Your task to perform on an android device: Open privacy settings Image 0: 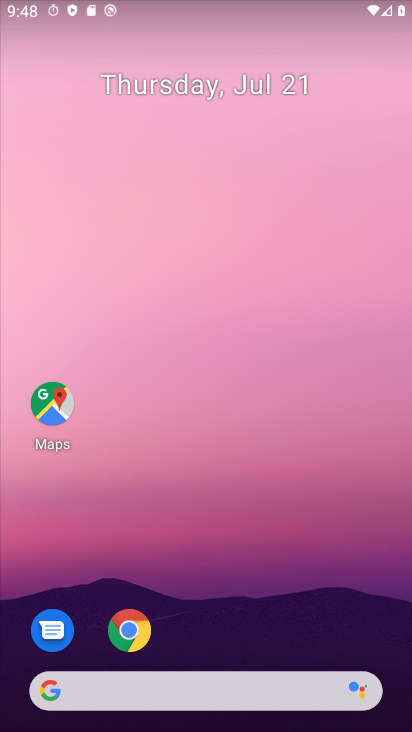
Step 0: drag from (175, 58) to (189, 148)
Your task to perform on an android device: Open privacy settings Image 1: 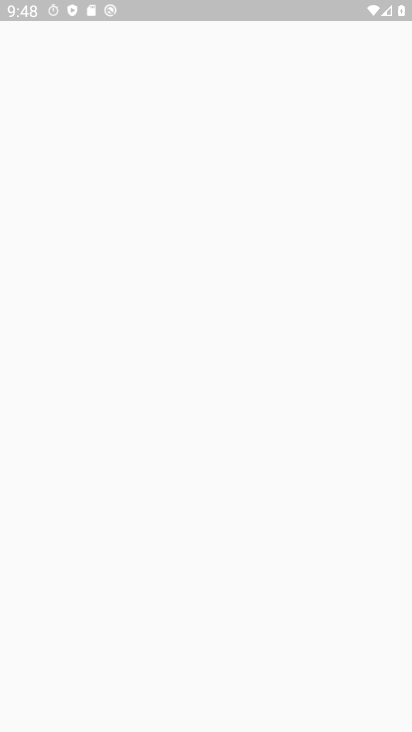
Step 1: click (126, 159)
Your task to perform on an android device: Open privacy settings Image 2: 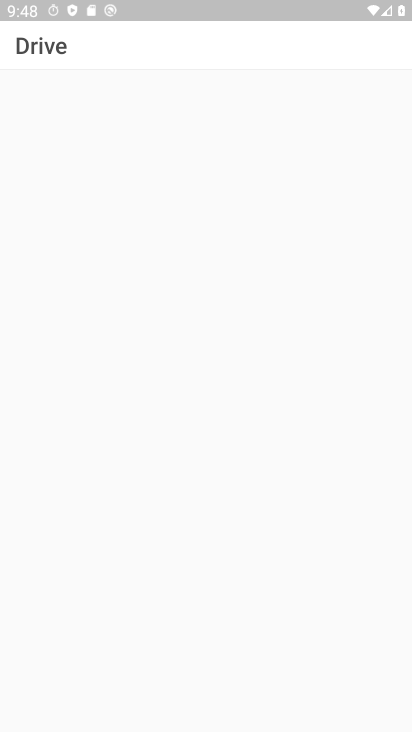
Step 2: press back button
Your task to perform on an android device: Open privacy settings Image 3: 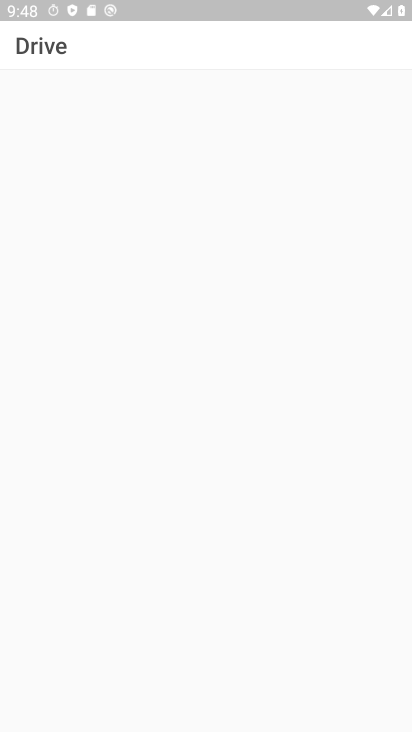
Step 3: click (197, 27)
Your task to perform on an android device: Open privacy settings Image 4: 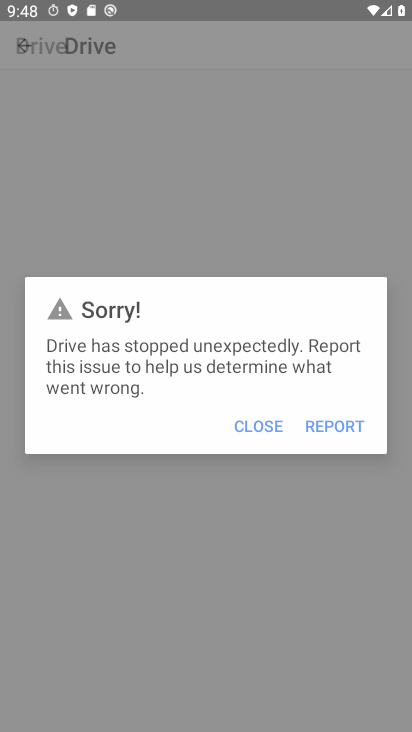
Step 4: press back button
Your task to perform on an android device: Open privacy settings Image 5: 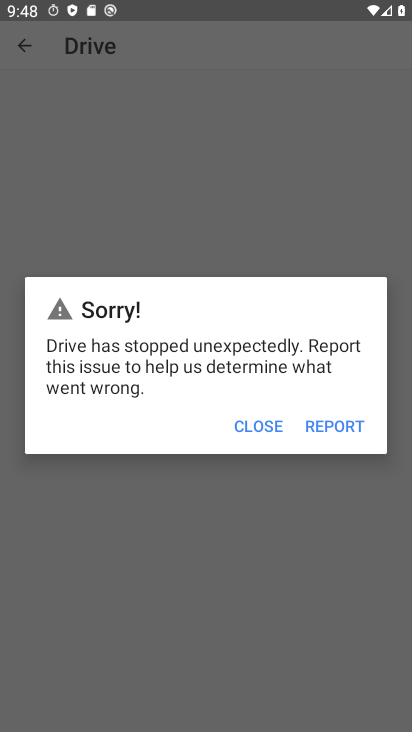
Step 5: click (242, 404)
Your task to perform on an android device: Open privacy settings Image 6: 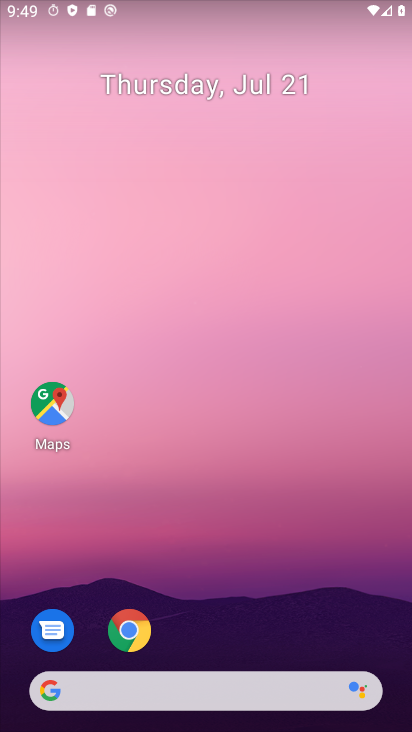
Step 6: drag from (227, 665) to (105, 209)
Your task to perform on an android device: Open privacy settings Image 7: 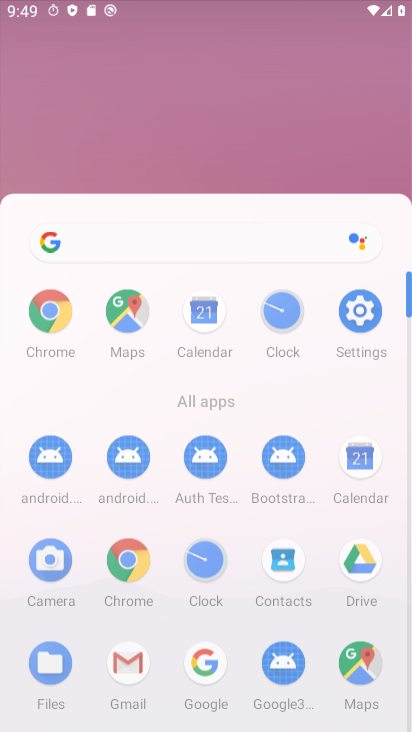
Step 7: drag from (219, 584) to (132, 178)
Your task to perform on an android device: Open privacy settings Image 8: 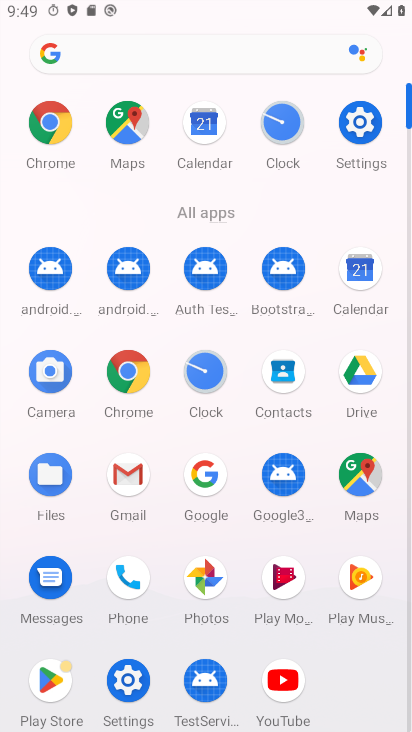
Step 8: drag from (190, 533) to (172, 160)
Your task to perform on an android device: Open privacy settings Image 9: 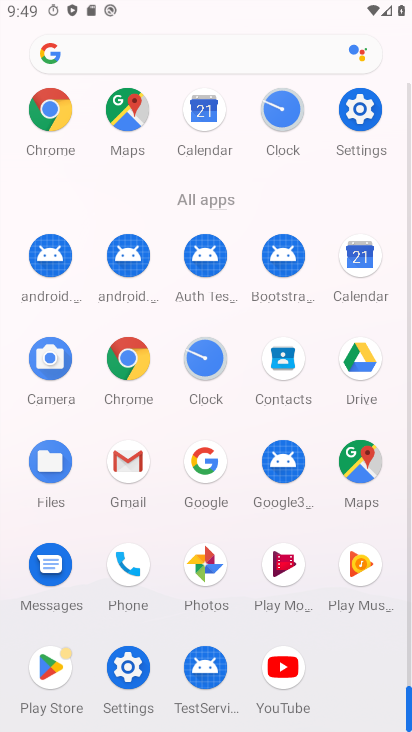
Step 9: click (357, 123)
Your task to perform on an android device: Open privacy settings Image 10: 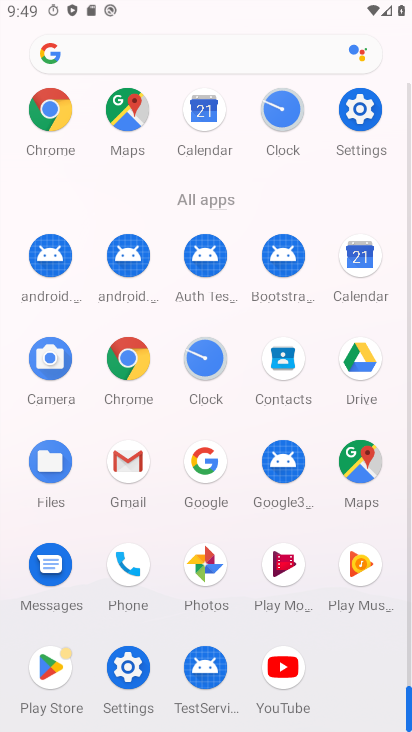
Step 10: click (372, 112)
Your task to perform on an android device: Open privacy settings Image 11: 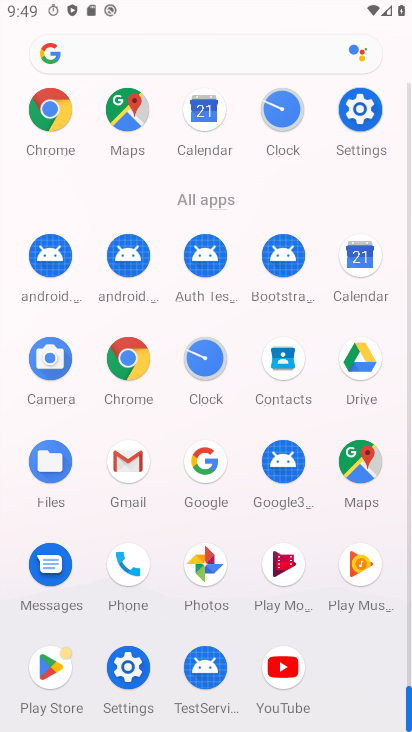
Step 11: click (373, 111)
Your task to perform on an android device: Open privacy settings Image 12: 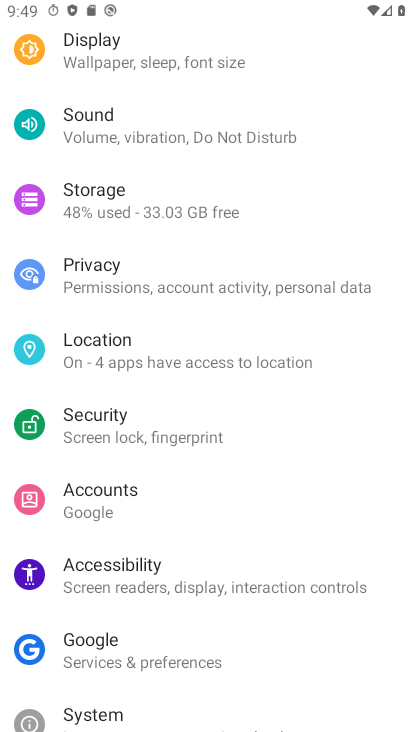
Step 12: click (107, 277)
Your task to perform on an android device: Open privacy settings Image 13: 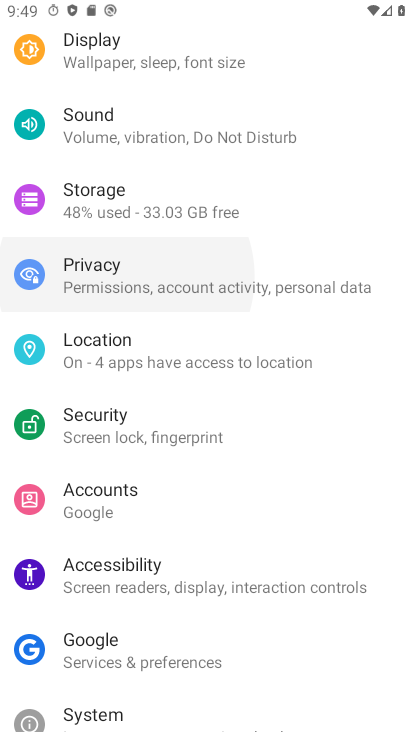
Step 13: click (107, 277)
Your task to perform on an android device: Open privacy settings Image 14: 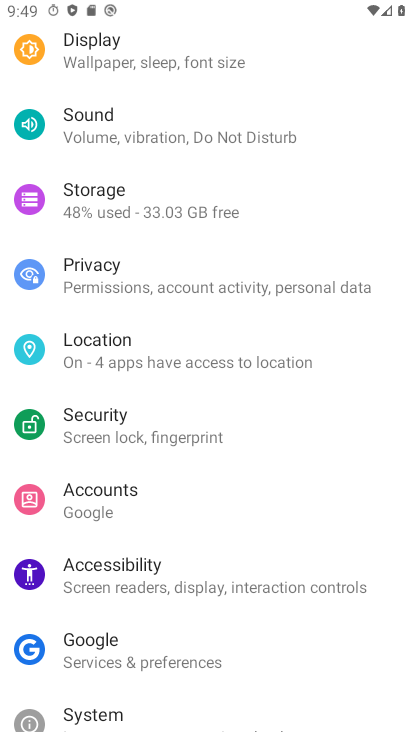
Step 14: click (114, 274)
Your task to perform on an android device: Open privacy settings Image 15: 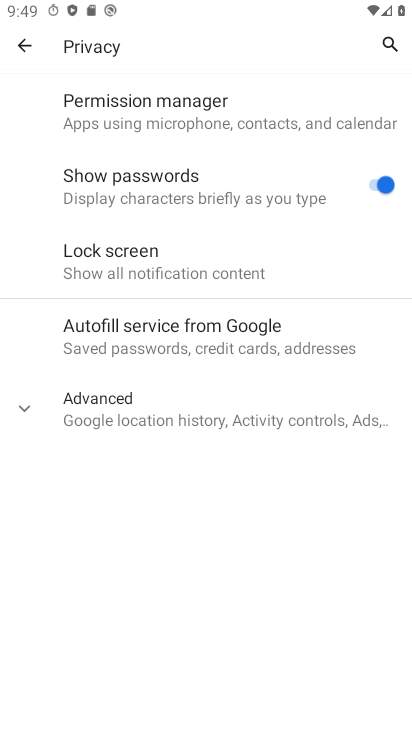
Step 15: task complete